Your task to perform on an android device: turn on the 12-hour format for clock Image 0: 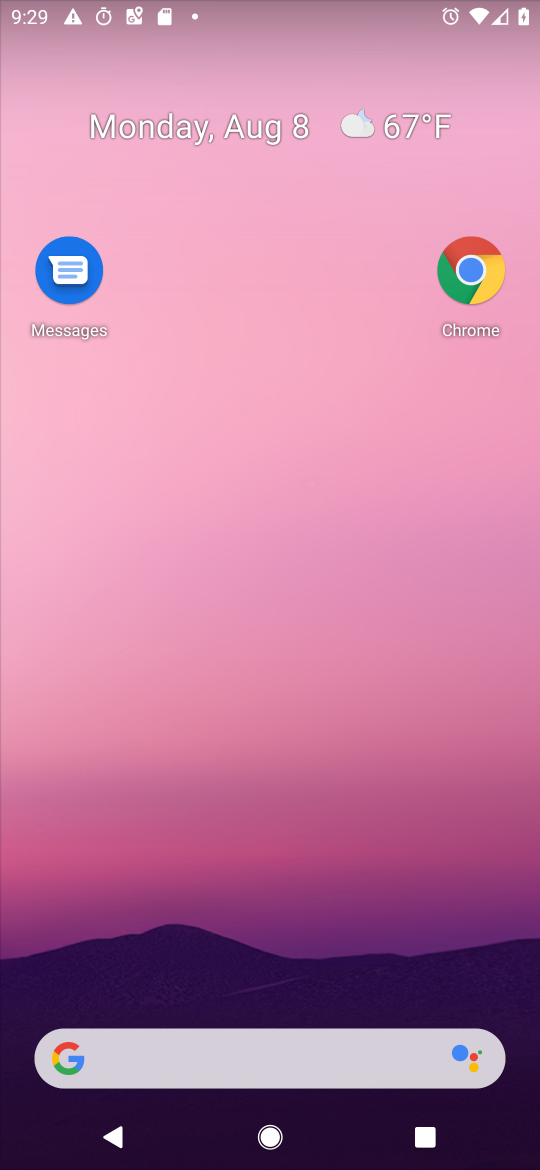
Step 0: drag from (228, 319) to (216, 29)
Your task to perform on an android device: turn on the 12-hour format for clock Image 1: 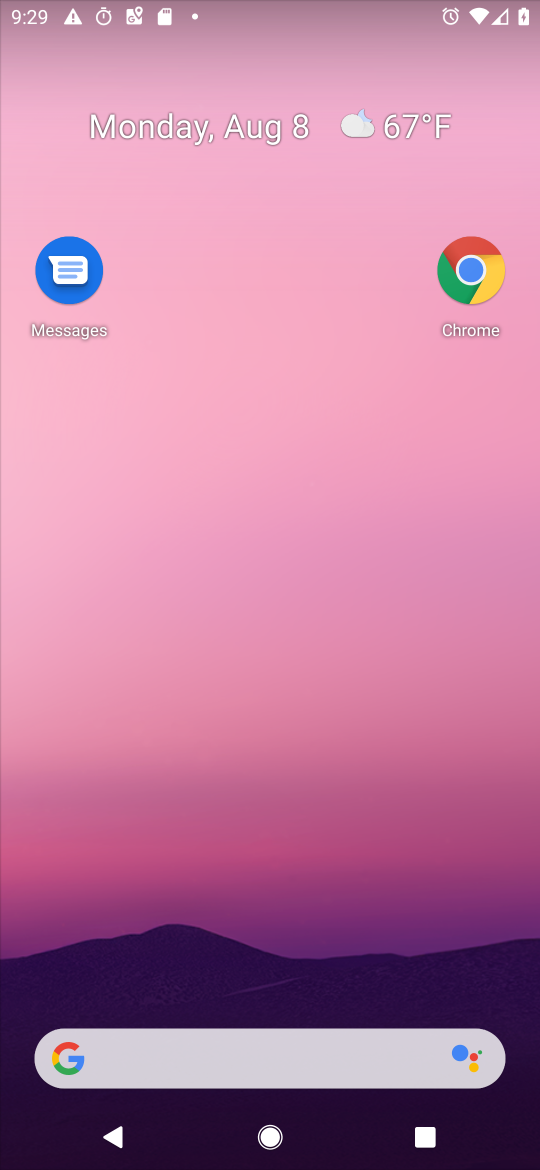
Step 1: drag from (282, 983) to (358, 158)
Your task to perform on an android device: turn on the 12-hour format for clock Image 2: 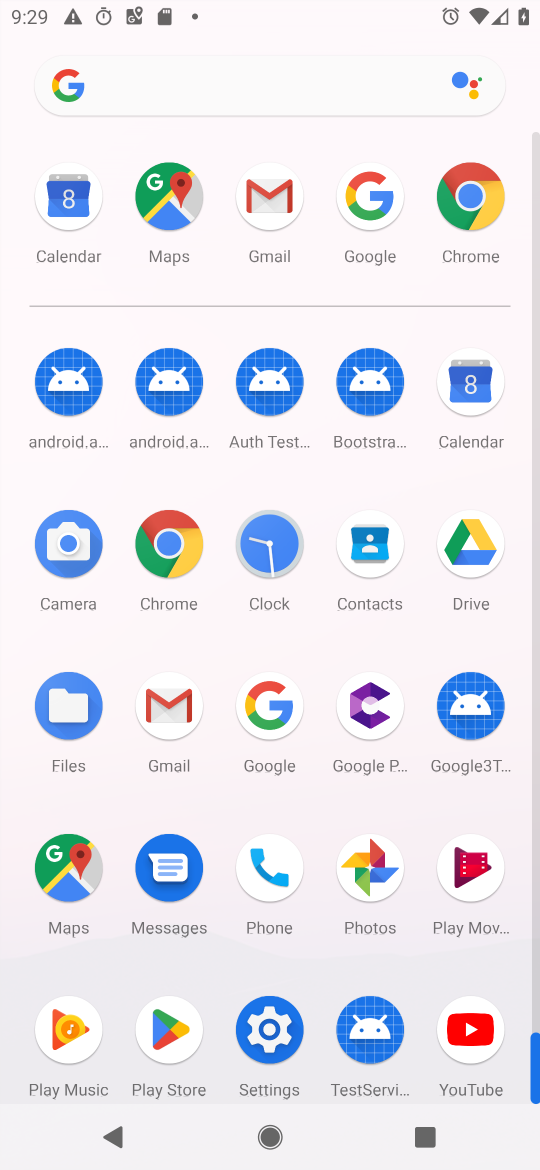
Step 2: drag from (232, 968) to (270, 504)
Your task to perform on an android device: turn on the 12-hour format for clock Image 3: 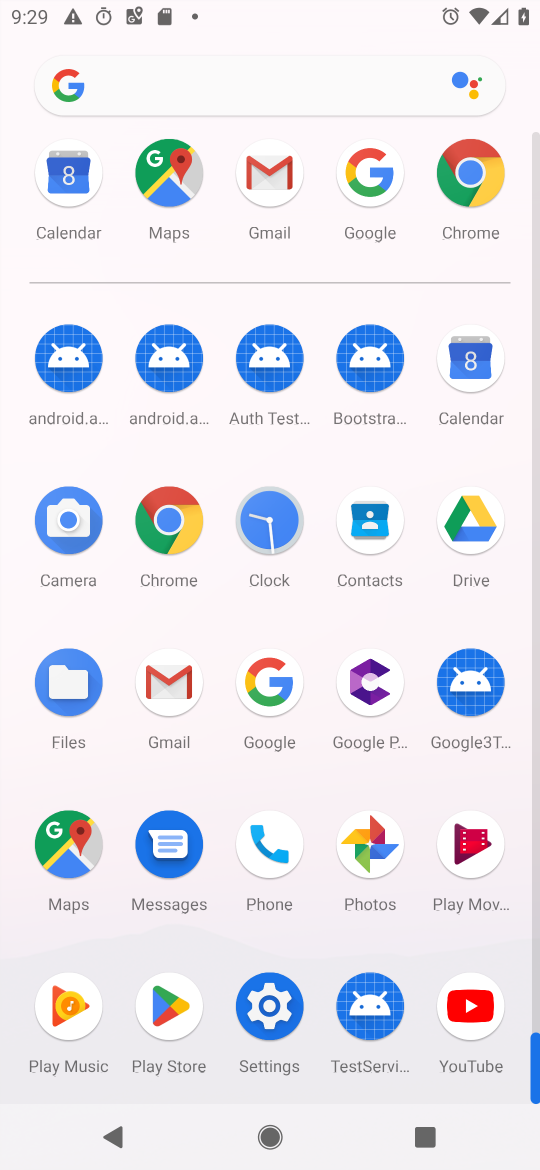
Step 3: click (267, 511)
Your task to perform on an android device: turn on the 12-hour format for clock Image 4: 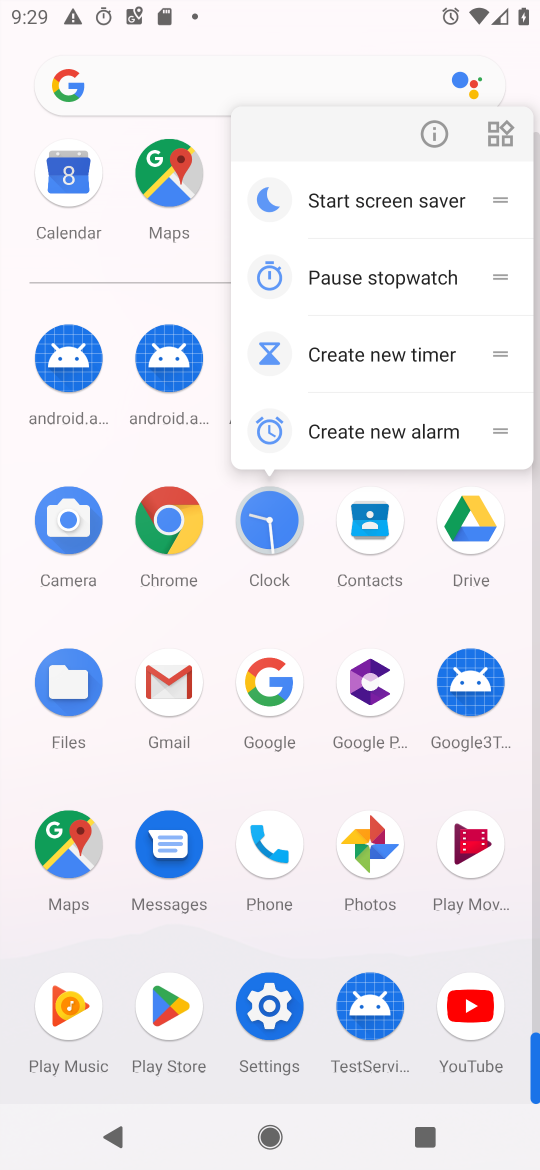
Step 4: click (431, 130)
Your task to perform on an android device: turn on the 12-hour format for clock Image 5: 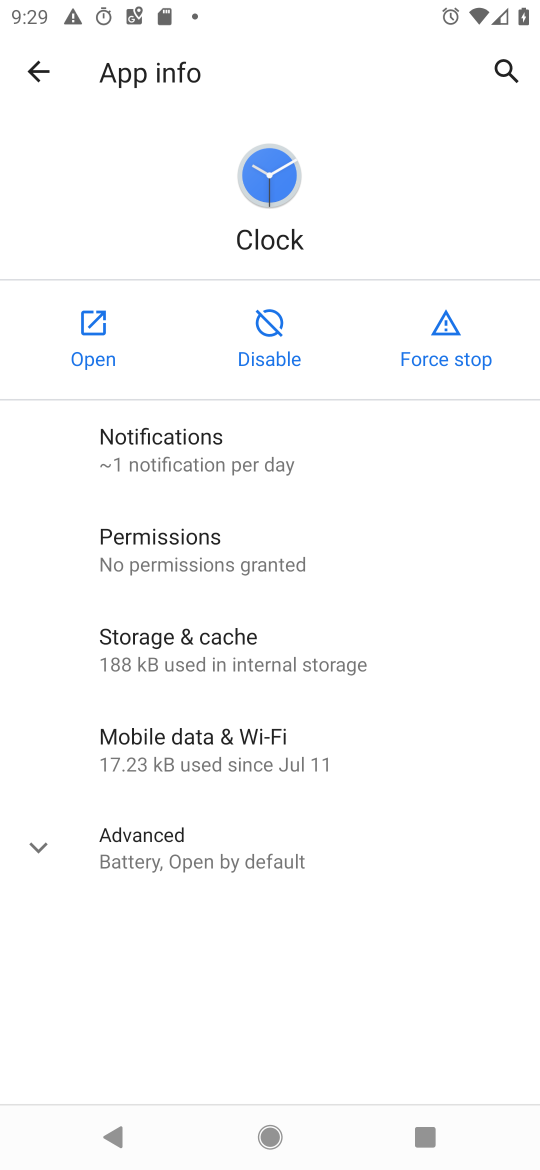
Step 5: click (120, 352)
Your task to perform on an android device: turn on the 12-hour format for clock Image 6: 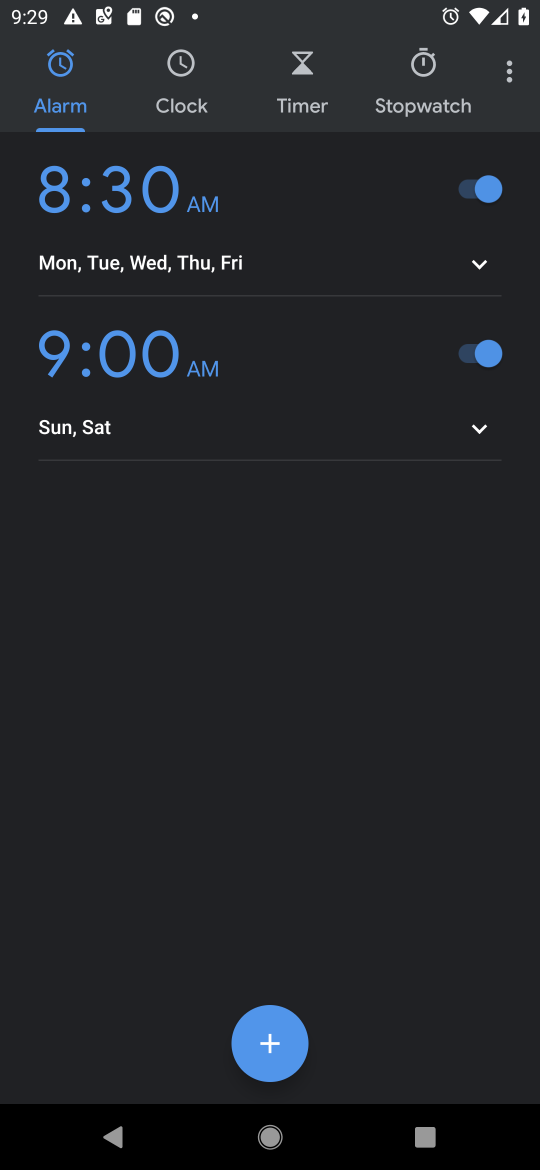
Step 6: drag from (505, 76) to (350, 133)
Your task to perform on an android device: turn on the 12-hour format for clock Image 7: 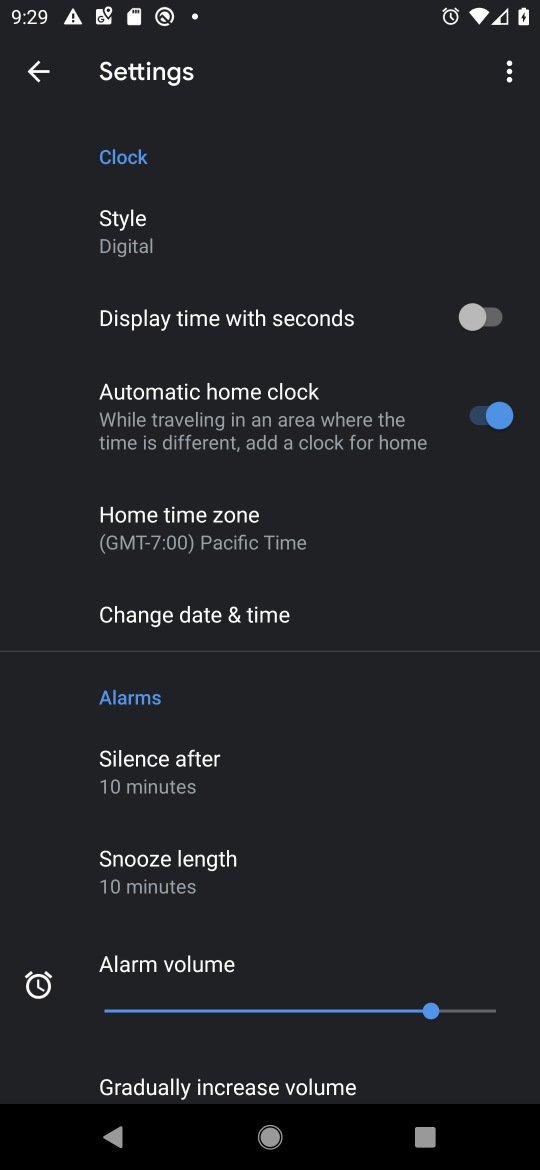
Step 7: click (190, 626)
Your task to perform on an android device: turn on the 12-hour format for clock Image 8: 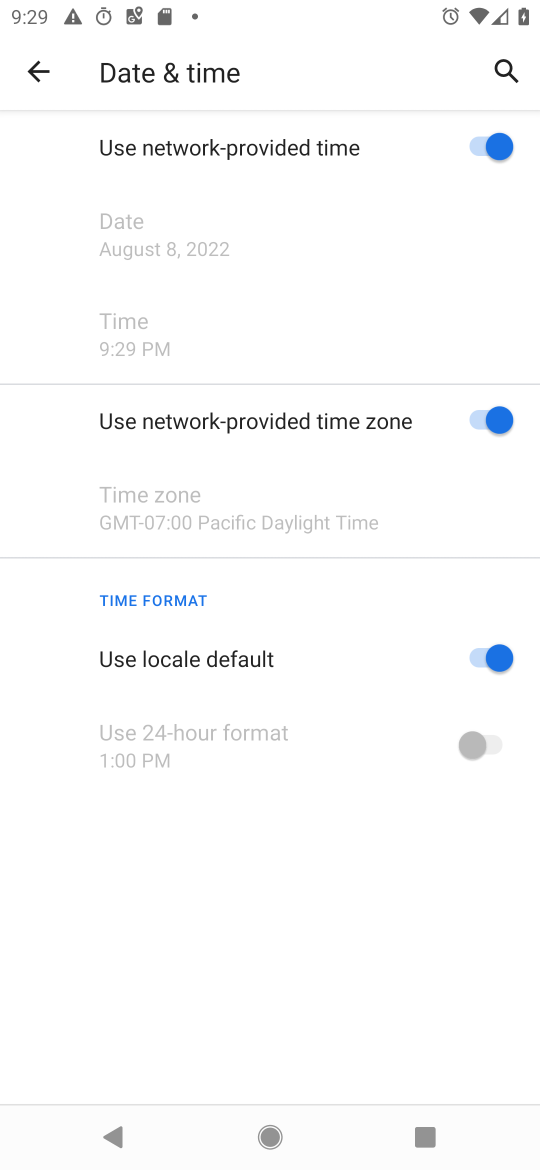
Step 8: task complete